Your task to perform on an android device: Open location settings Image 0: 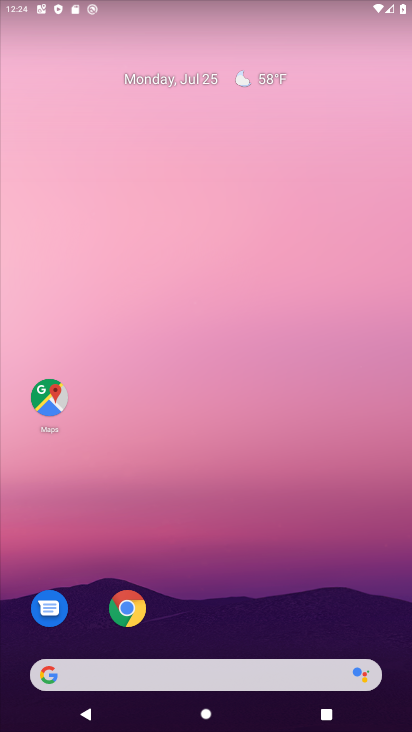
Step 0: drag from (188, 681) to (210, 68)
Your task to perform on an android device: Open location settings Image 1: 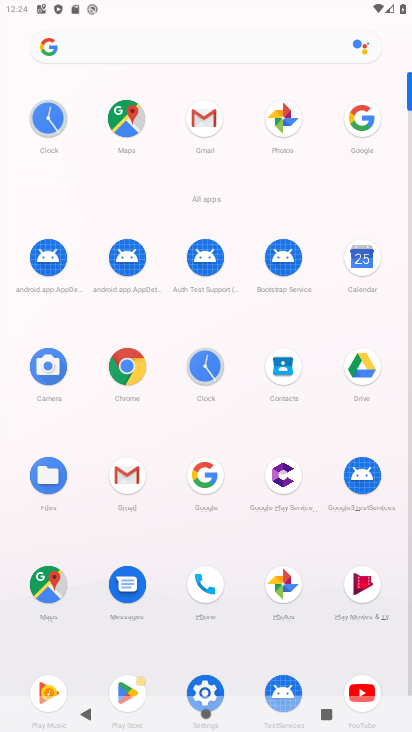
Step 1: click (204, 691)
Your task to perform on an android device: Open location settings Image 2: 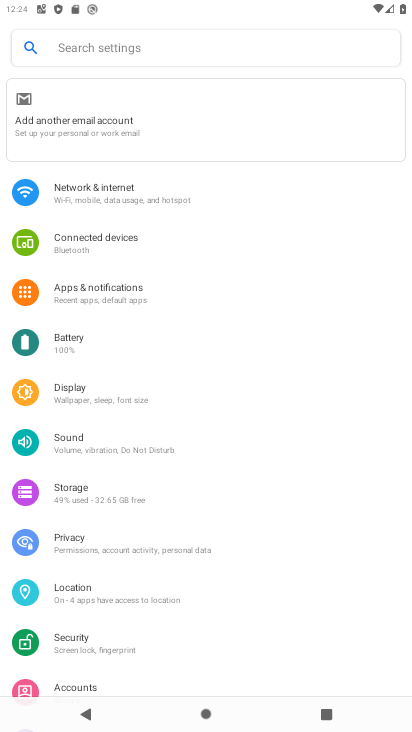
Step 2: click (90, 593)
Your task to perform on an android device: Open location settings Image 3: 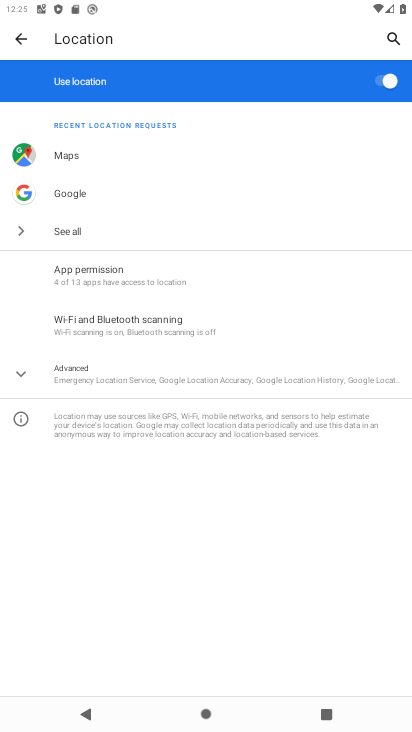
Step 3: task complete